Your task to perform on an android device: turn smart compose on in the gmail app Image 0: 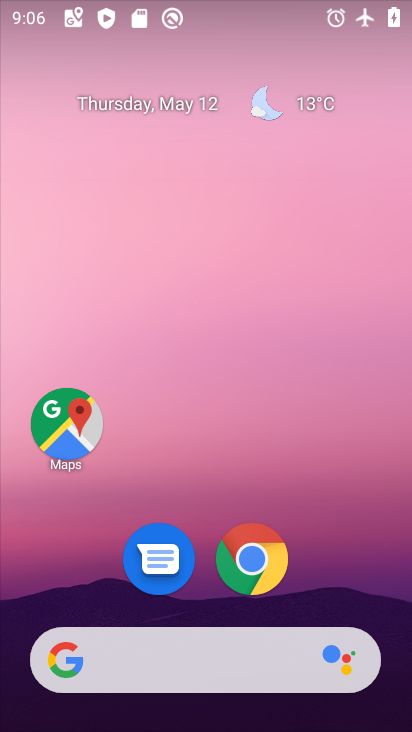
Step 0: drag from (49, 625) to (209, 168)
Your task to perform on an android device: turn smart compose on in the gmail app Image 1: 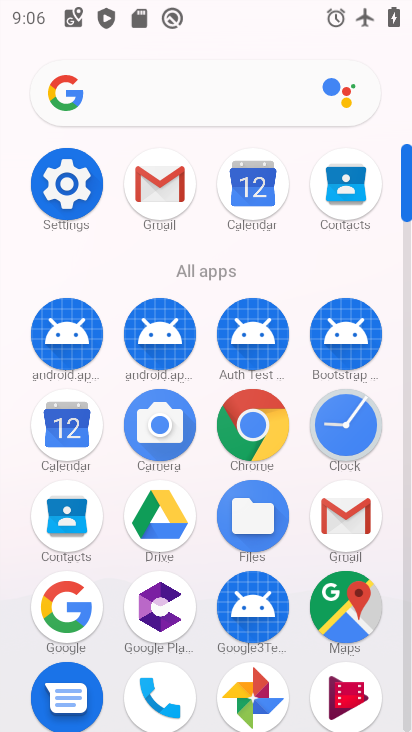
Step 1: click (351, 527)
Your task to perform on an android device: turn smart compose on in the gmail app Image 2: 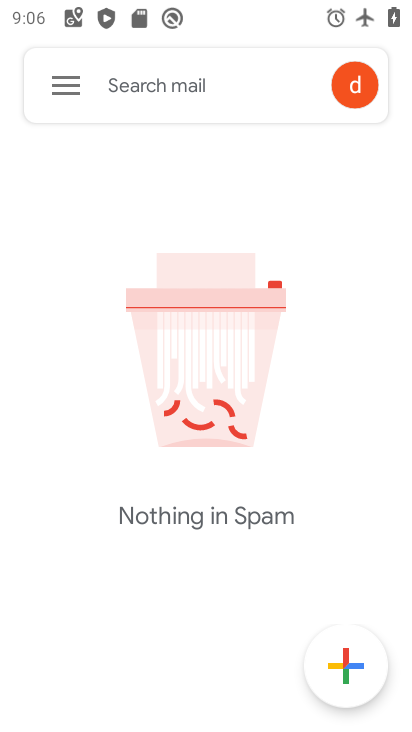
Step 2: click (101, 121)
Your task to perform on an android device: turn smart compose on in the gmail app Image 3: 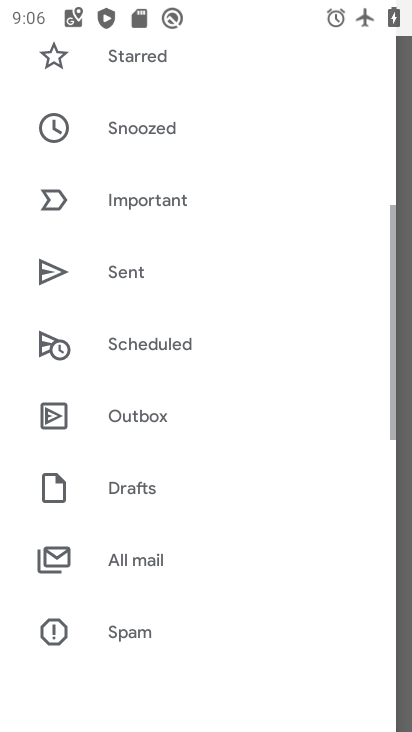
Step 3: drag from (157, 604) to (279, 189)
Your task to perform on an android device: turn smart compose on in the gmail app Image 4: 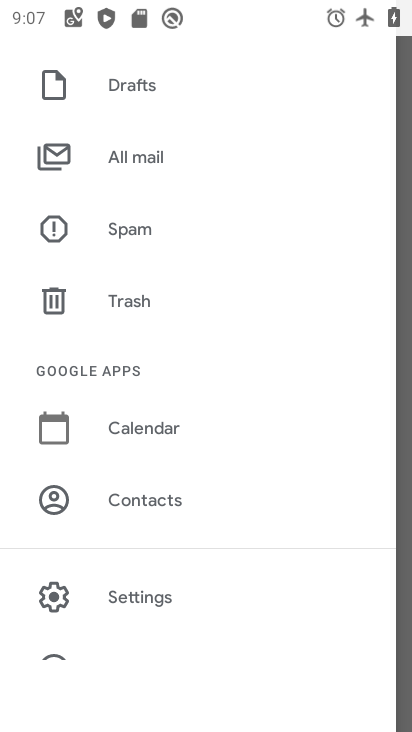
Step 4: click (159, 589)
Your task to perform on an android device: turn smart compose on in the gmail app Image 5: 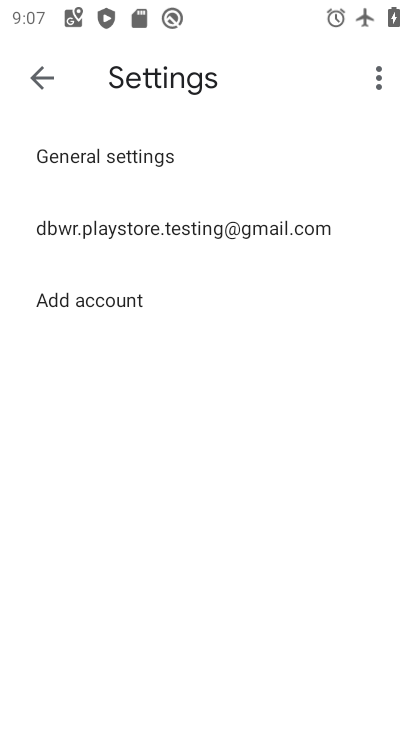
Step 5: click (234, 250)
Your task to perform on an android device: turn smart compose on in the gmail app Image 6: 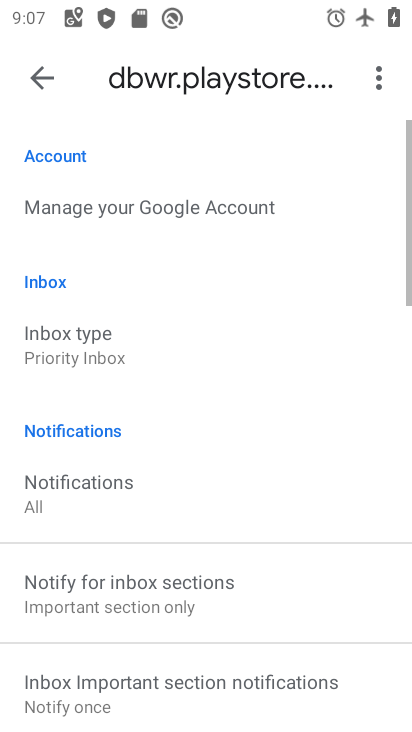
Step 6: task complete